Your task to perform on an android device: Go to sound settings Image 0: 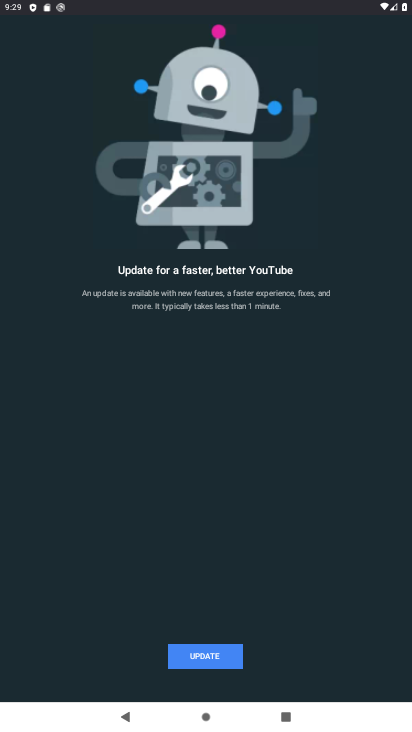
Step 0: press home button
Your task to perform on an android device: Go to sound settings Image 1: 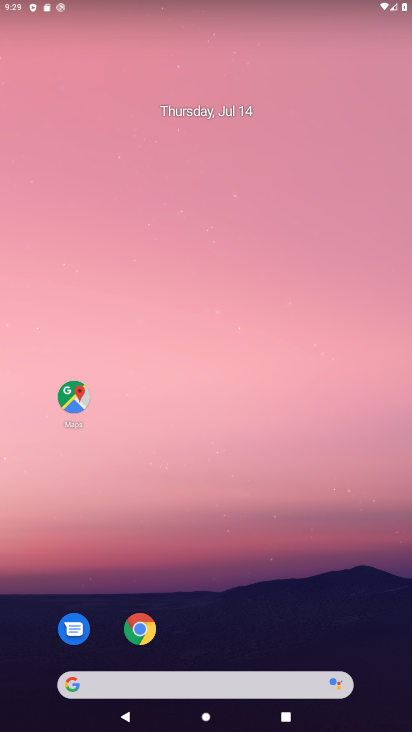
Step 1: drag from (260, 628) to (321, 214)
Your task to perform on an android device: Go to sound settings Image 2: 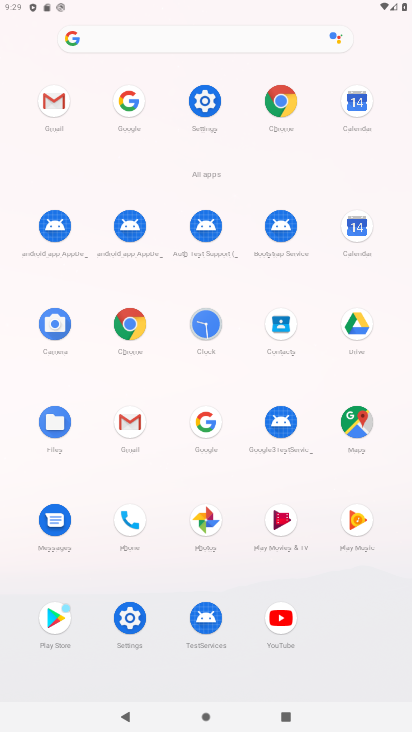
Step 2: click (129, 616)
Your task to perform on an android device: Go to sound settings Image 3: 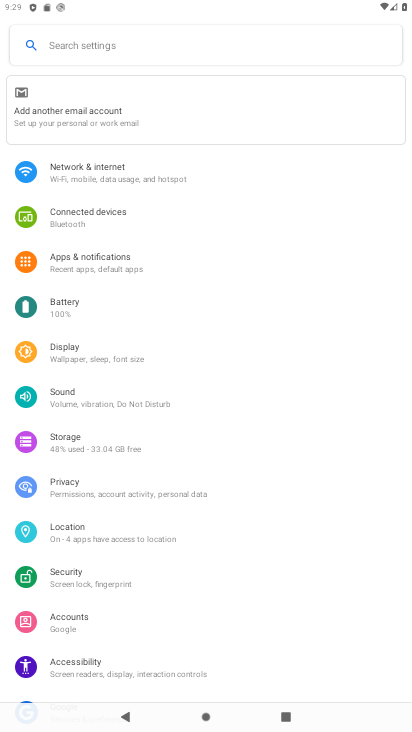
Step 3: click (79, 397)
Your task to perform on an android device: Go to sound settings Image 4: 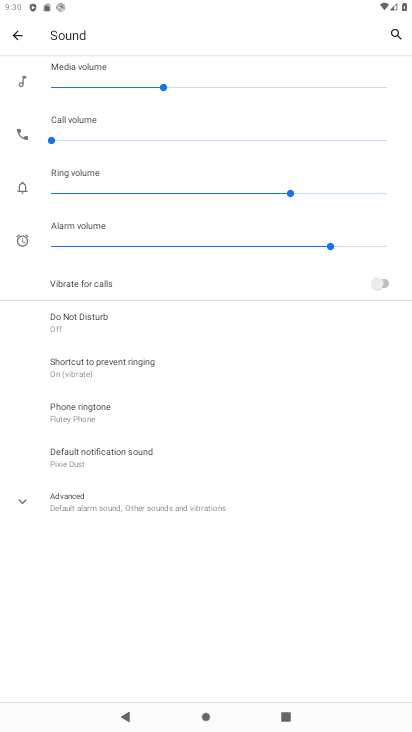
Step 4: task complete